Your task to perform on an android device: Go to calendar. Show me events next week Image 0: 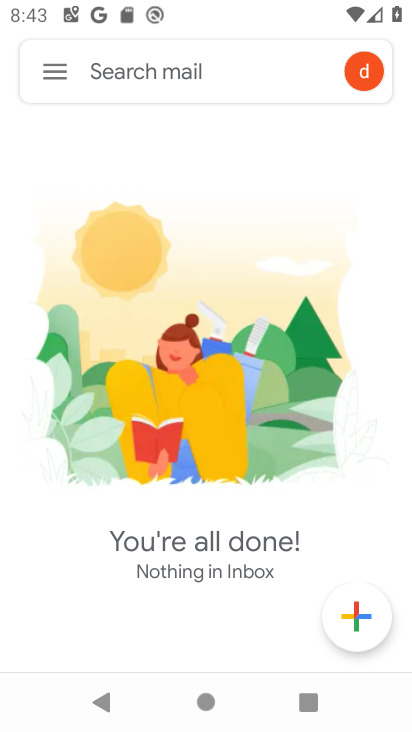
Step 0: press home button
Your task to perform on an android device: Go to calendar. Show me events next week Image 1: 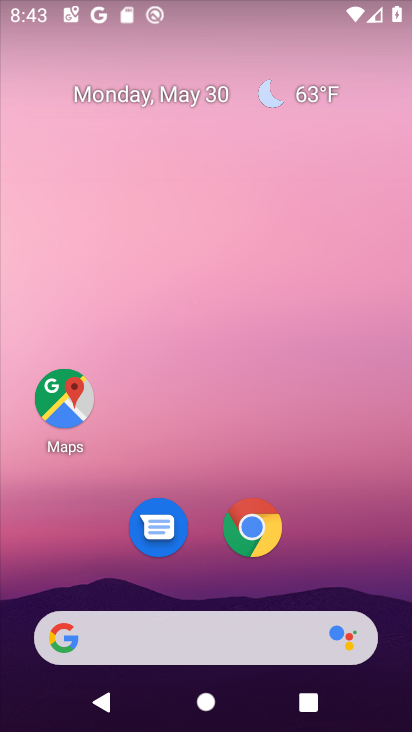
Step 1: drag from (322, 566) to (311, 189)
Your task to perform on an android device: Go to calendar. Show me events next week Image 2: 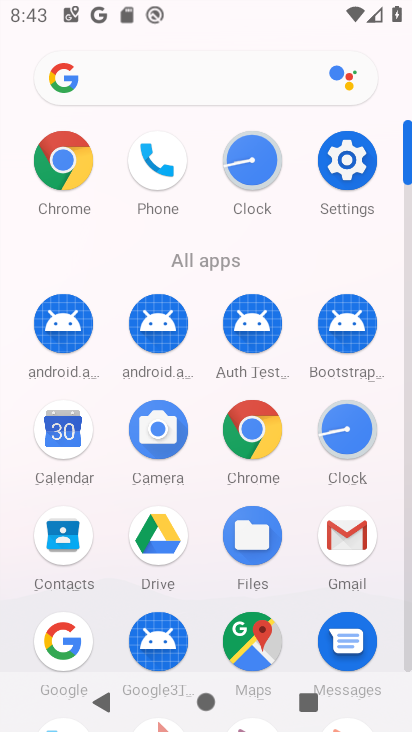
Step 2: click (57, 444)
Your task to perform on an android device: Go to calendar. Show me events next week Image 3: 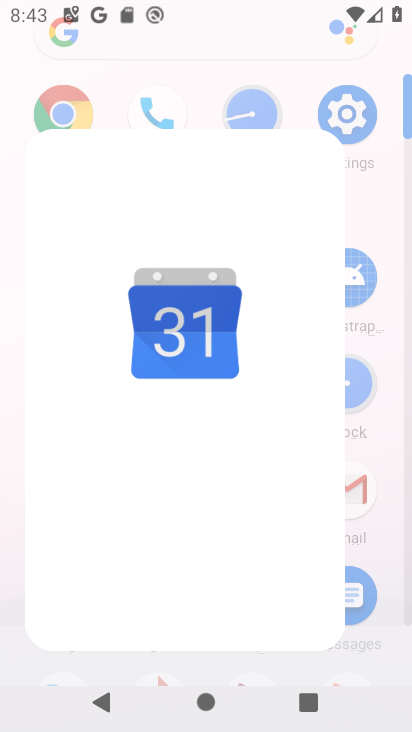
Step 3: click (61, 427)
Your task to perform on an android device: Go to calendar. Show me events next week Image 4: 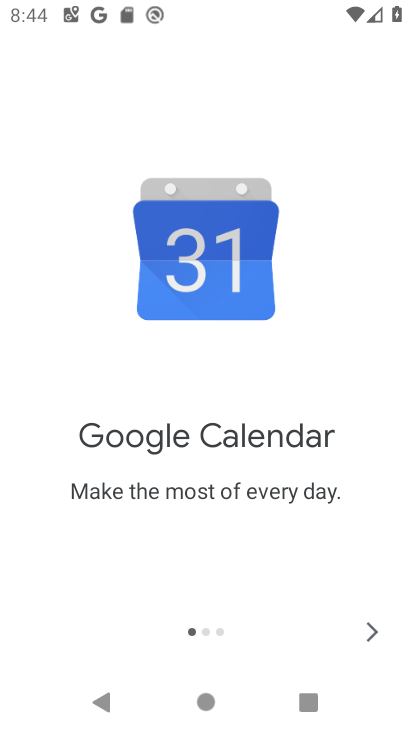
Step 4: click (353, 621)
Your task to perform on an android device: Go to calendar. Show me events next week Image 5: 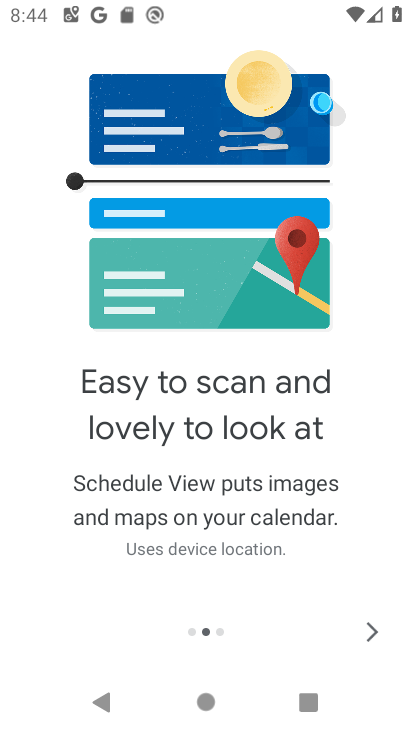
Step 5: click (362, 621)
Your task to perform on an android device: Go to calendar. Show me events next week Image 6: 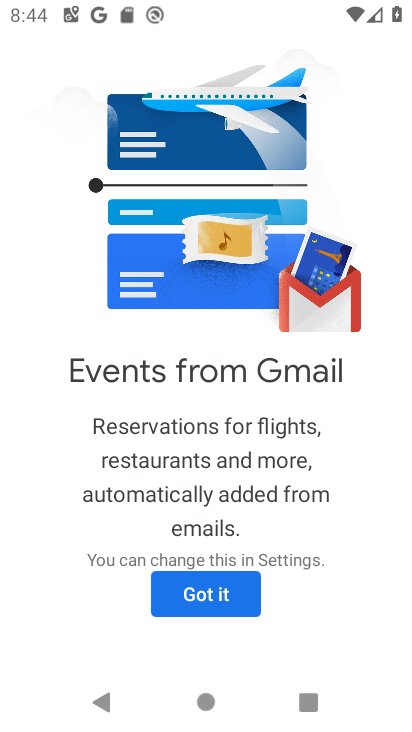
Step 6: click (205, 598)
Your task to perform on an android device: Go to calendar. Show me events next week Image 7: 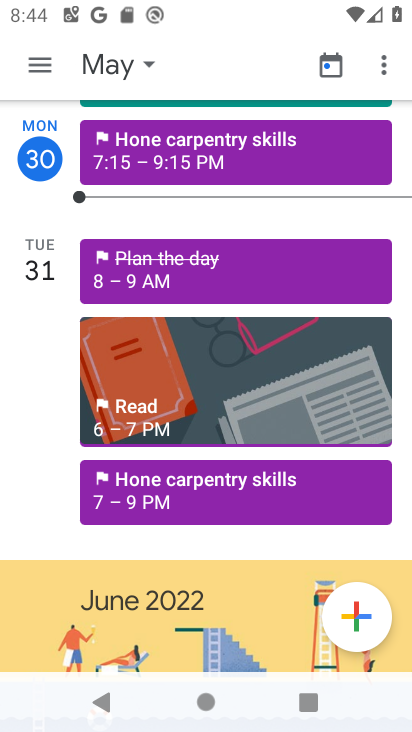
Step 7: click (44, 64)
Your task to perform on an android device: Go to calendar. Show me events next week Image 8: 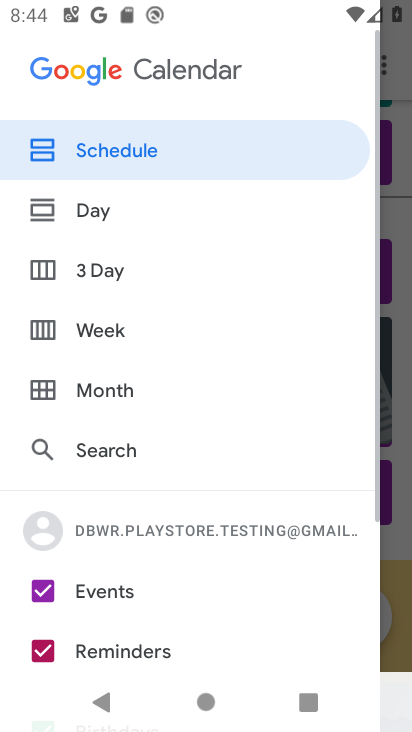
Step 8: click (118, 332)
Your task to perform on an android device: Go to calendar. Show me events next week Image 9: 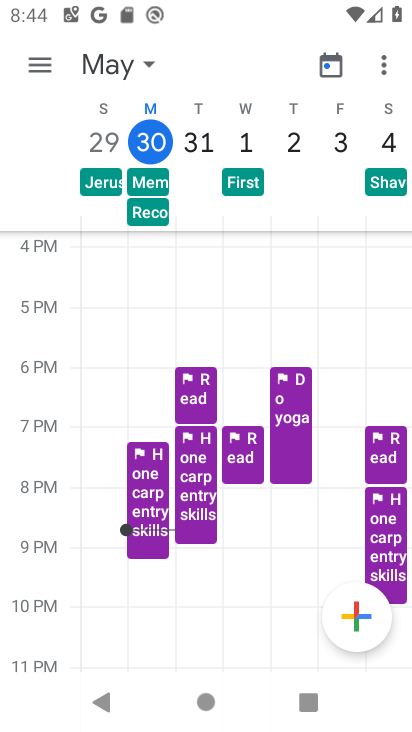
Step 9: task complete